Your task to perform on an android device: check android version Image 0: 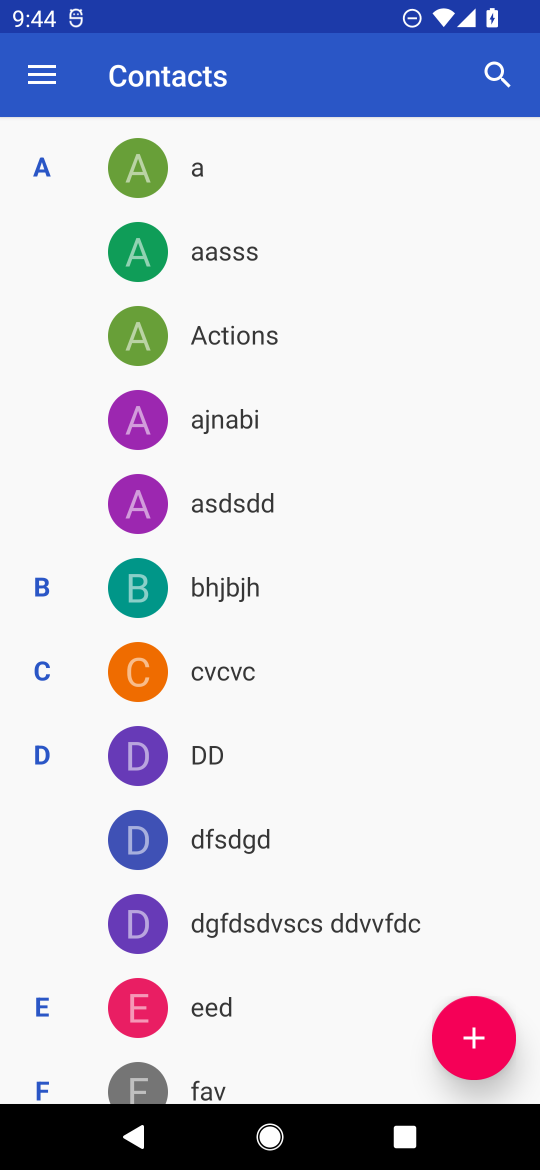
Step 0: press home button
Your task to perform on an android device: check android version Image 1: 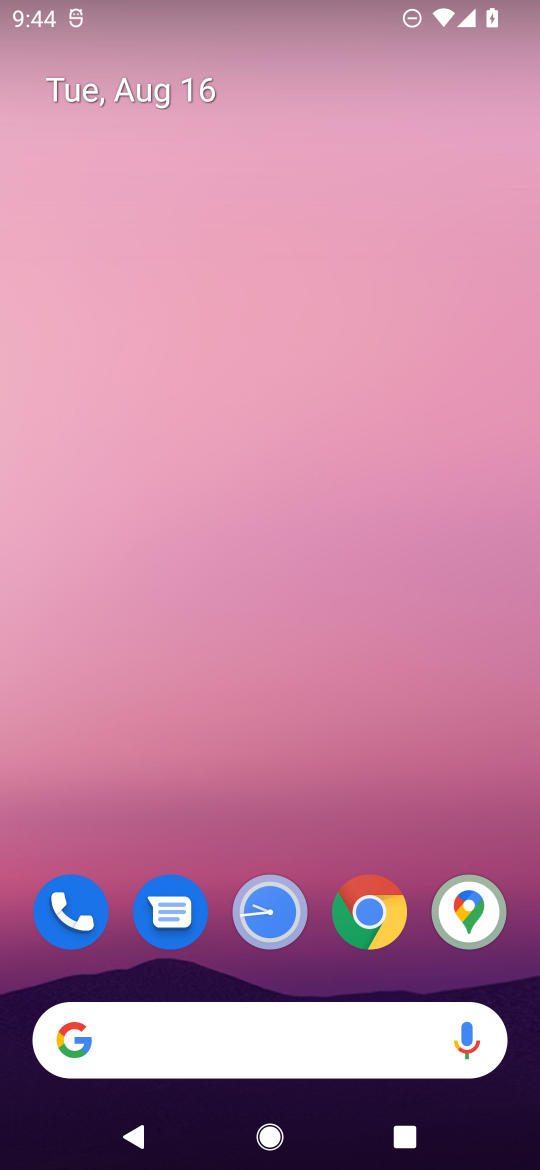
Step 1: drag from (287, 990) to (246, 19)
Your task to perform on an android device: check android version Image 2: 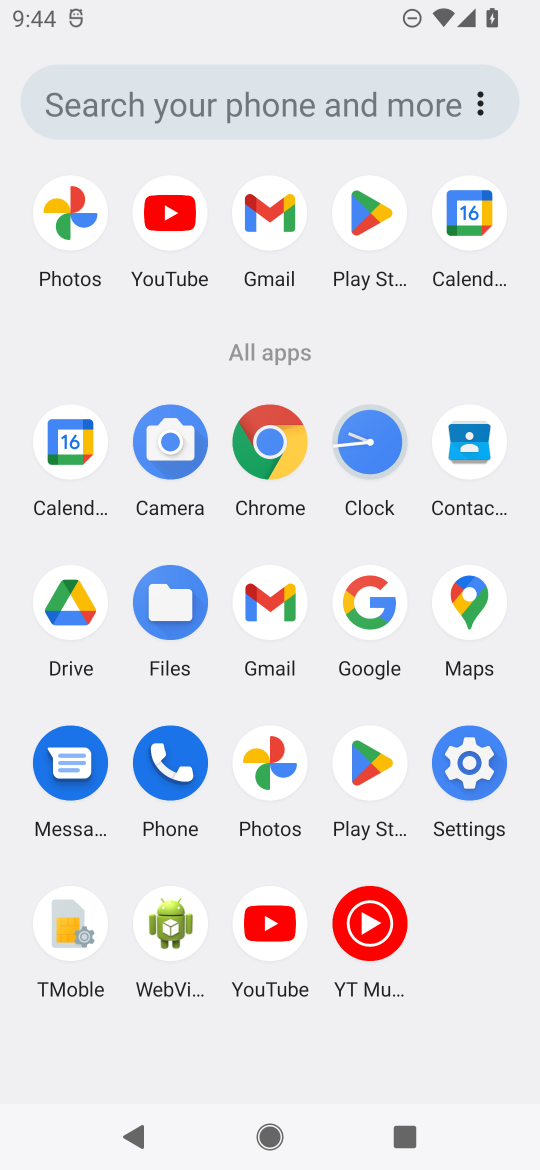
Step 2: click (478, 766)
Your task to perform on an android device: check android version Image 3: 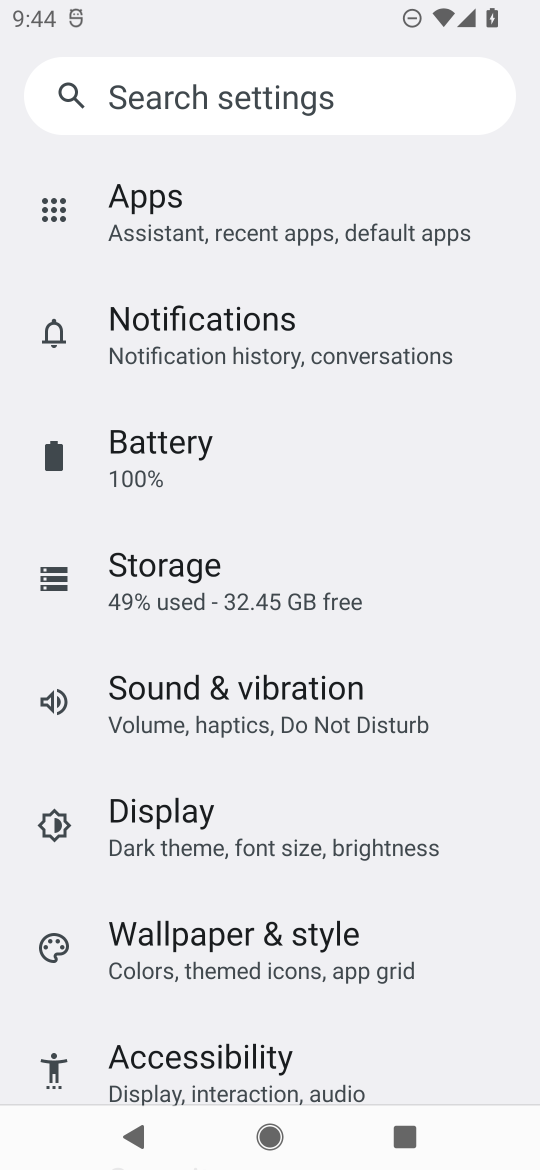
Step 3: drag from (298, 1071) to (322, 426)
Your task to perform on an android device: check android version Image 4: 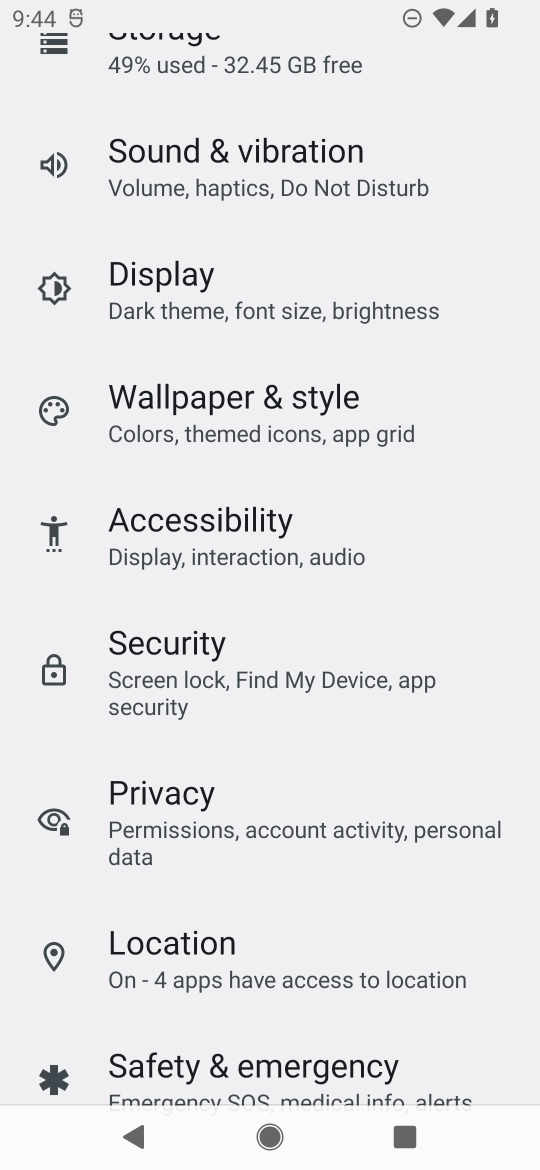
Step 4: drag from (404, 1090) to (405, 655)
Your task to perform on an android device: check android version Image 5: 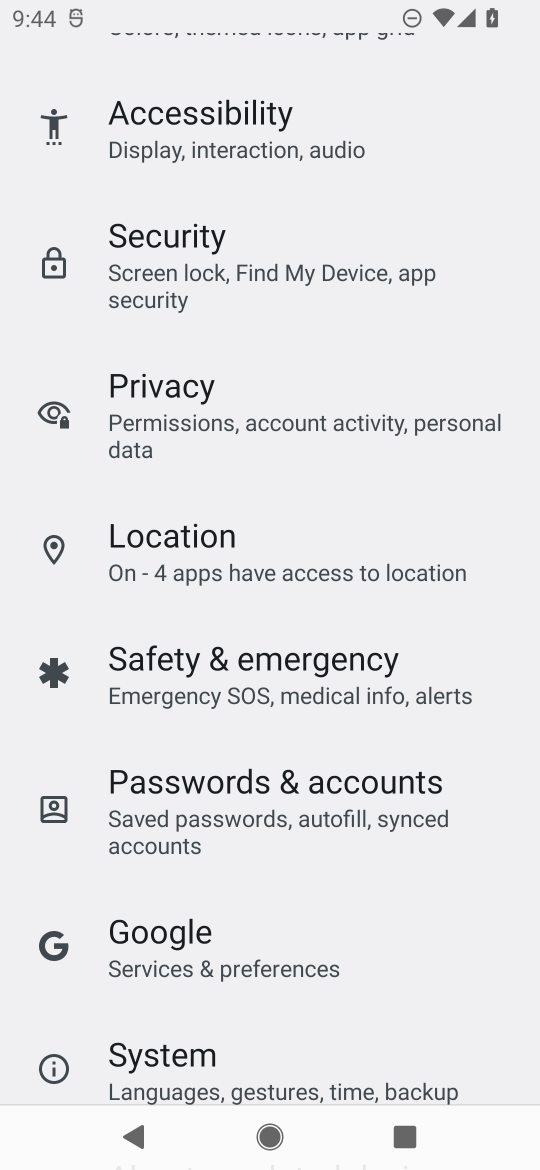
Step 5: drag from (285, 1053) to (232, 516)
Your task to perform on an android device: check android version Image 6: 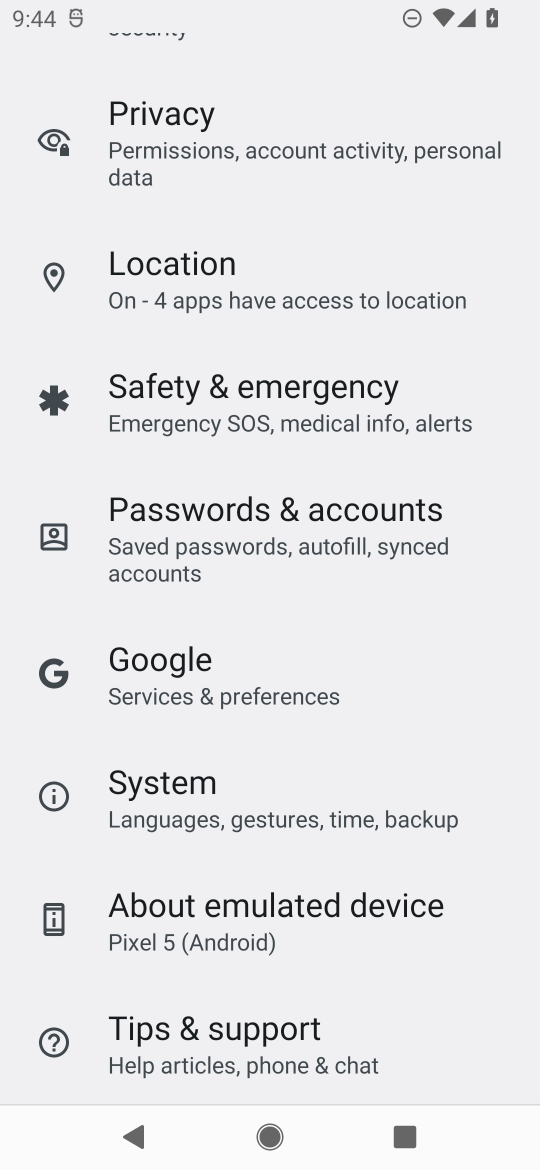
Step 6: drag from (459, 1074) to (476, 567)
Your task to perform on an android device: check android version Image 7: 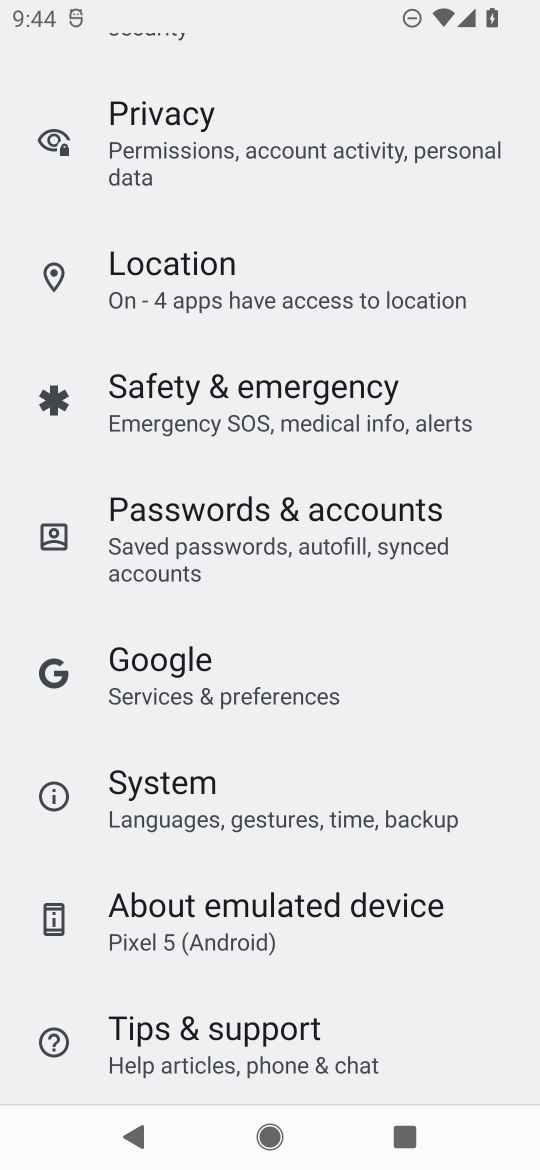
Step 7: drag from (181, 1094) to (151, 242)
Your task to perform on an android device: check android version Image 8: 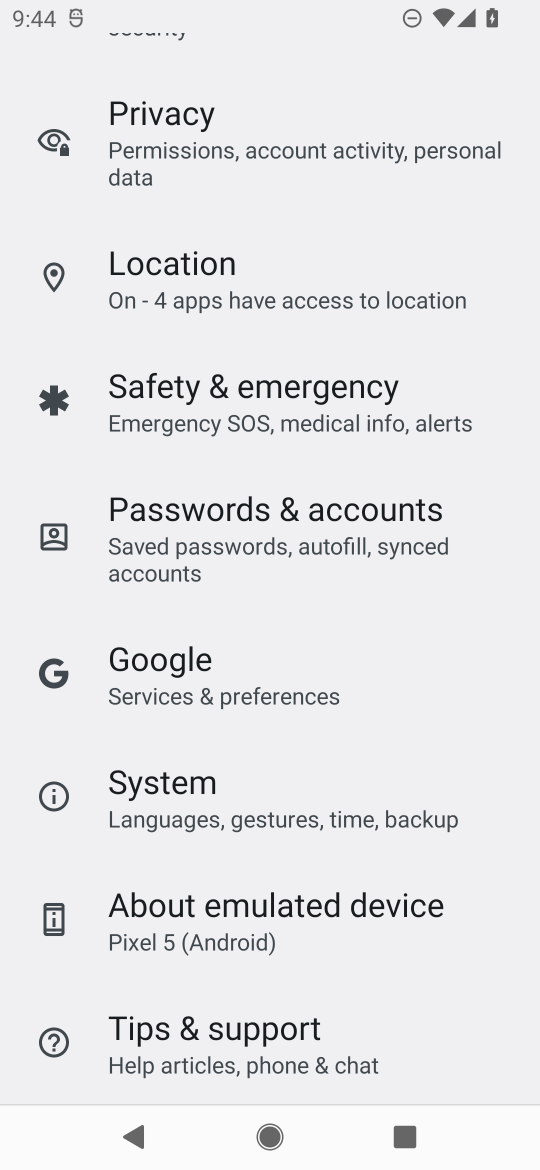
Step 8: click (217, 925)
Your task to perform on an android device: check android version Image 9: 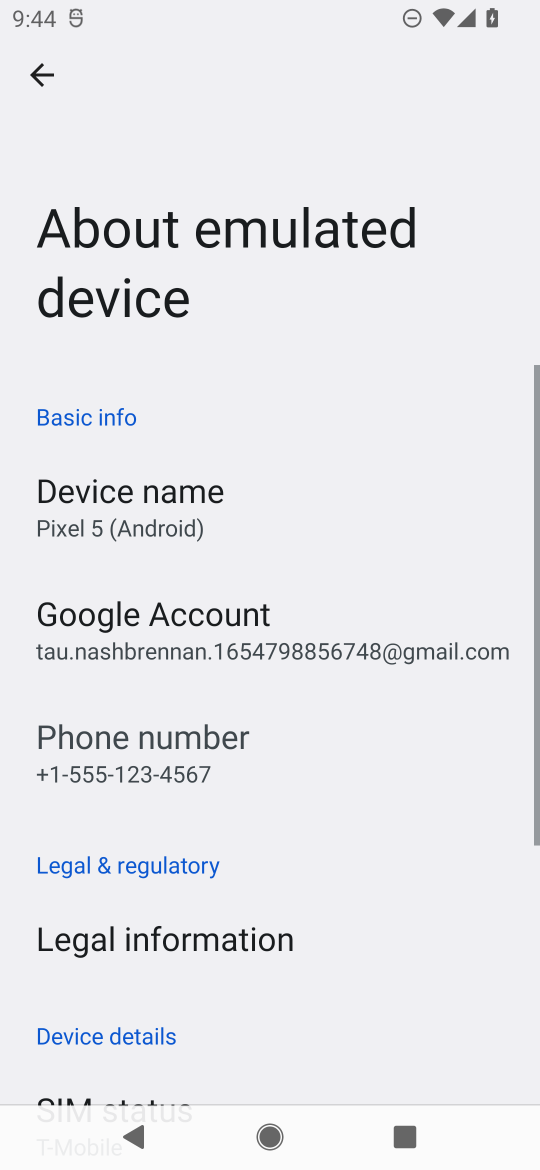
Step 9: drag from (382, 1038) to (426, 491)
Your task to perform on an android device: check android version Image 10: 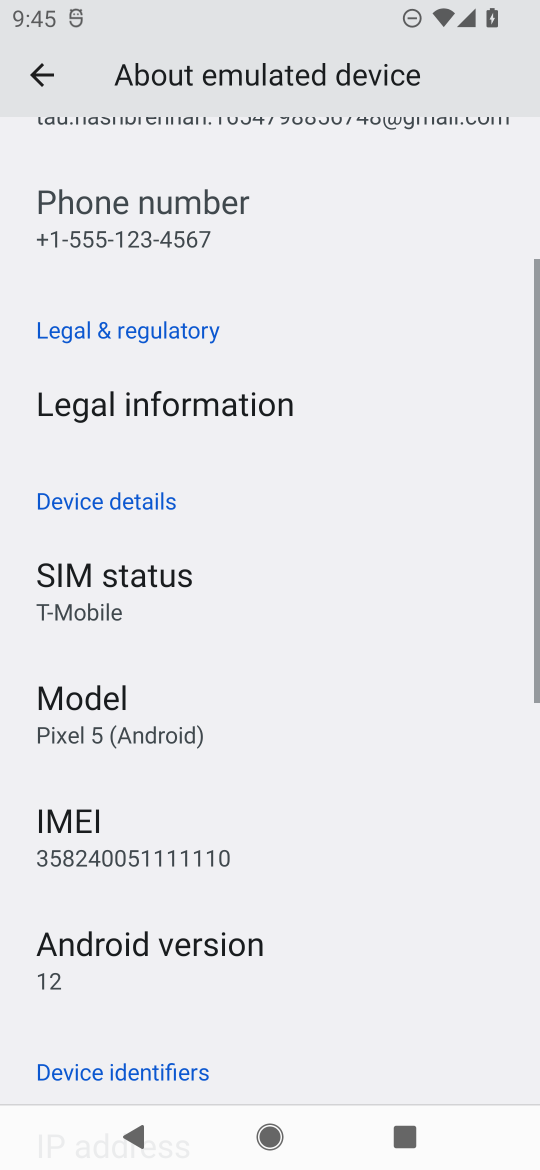
Step 10: click (50, 981)
Your task to perform on an android device: check android version Image 11: 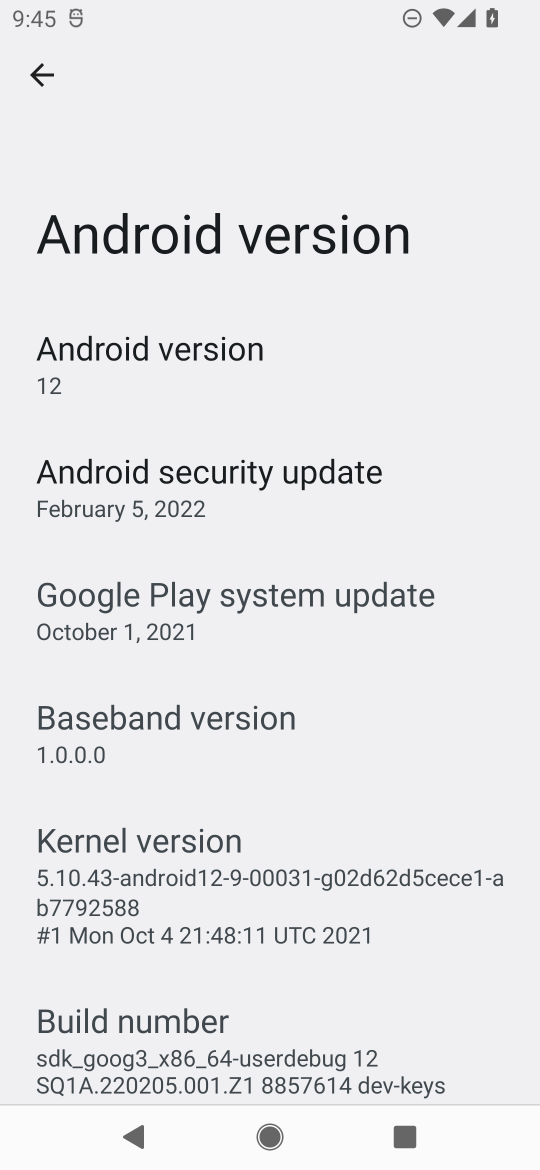
Step 11: task complete